Your task to perform on an android device: uninstall "HBO Max: Stream TV & Movies" Image 0: 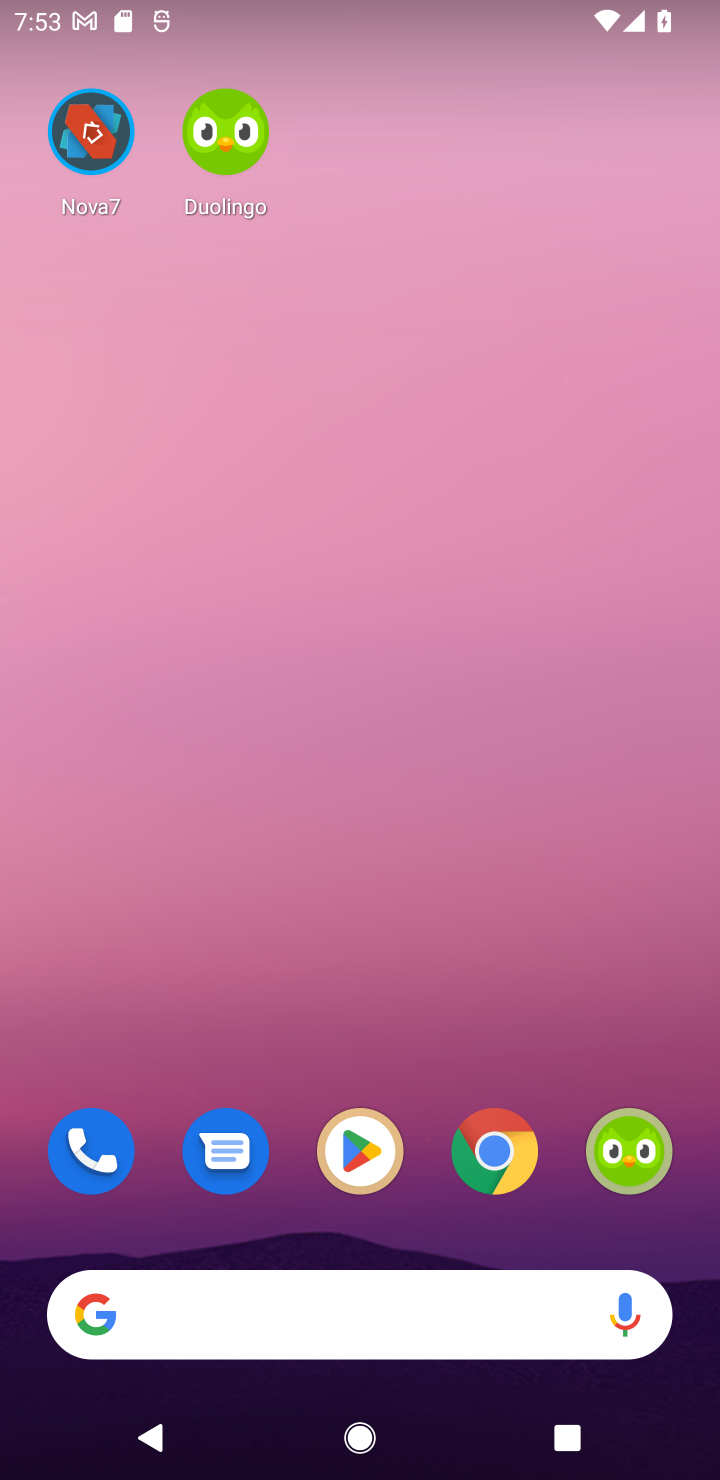
Step 0: click (338, 1144)
Your task to perform on an android device: uninstall "HBO Max: Stream TV & Movies" Image 1: 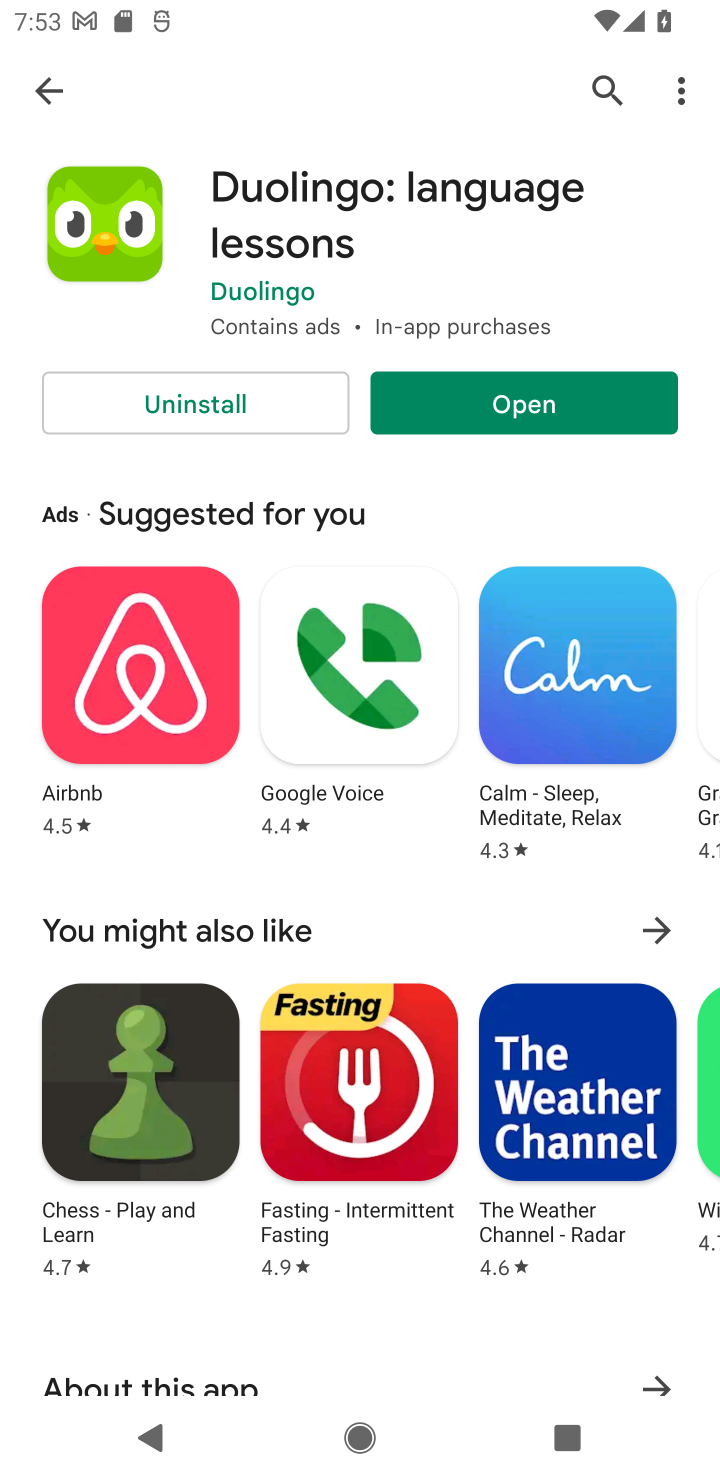
Step 1: click (45, 93)
Your task to perform on an android device: uninstall "HBO Max: Stream TV & Movies" Image 2: 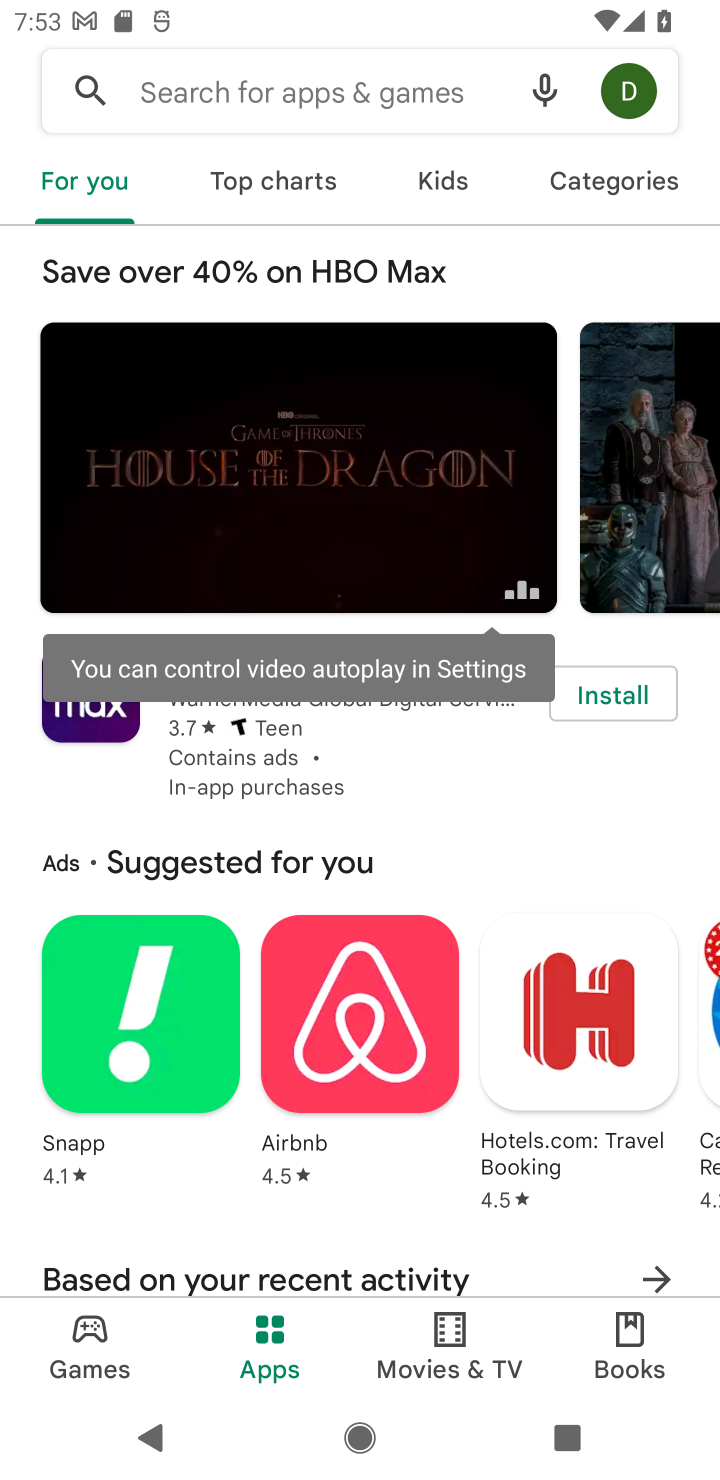
Step 2: click (295, 93)
Your task to perform on an android device: uninstall "HBO Max: Stream TV & Movies" Image 3: 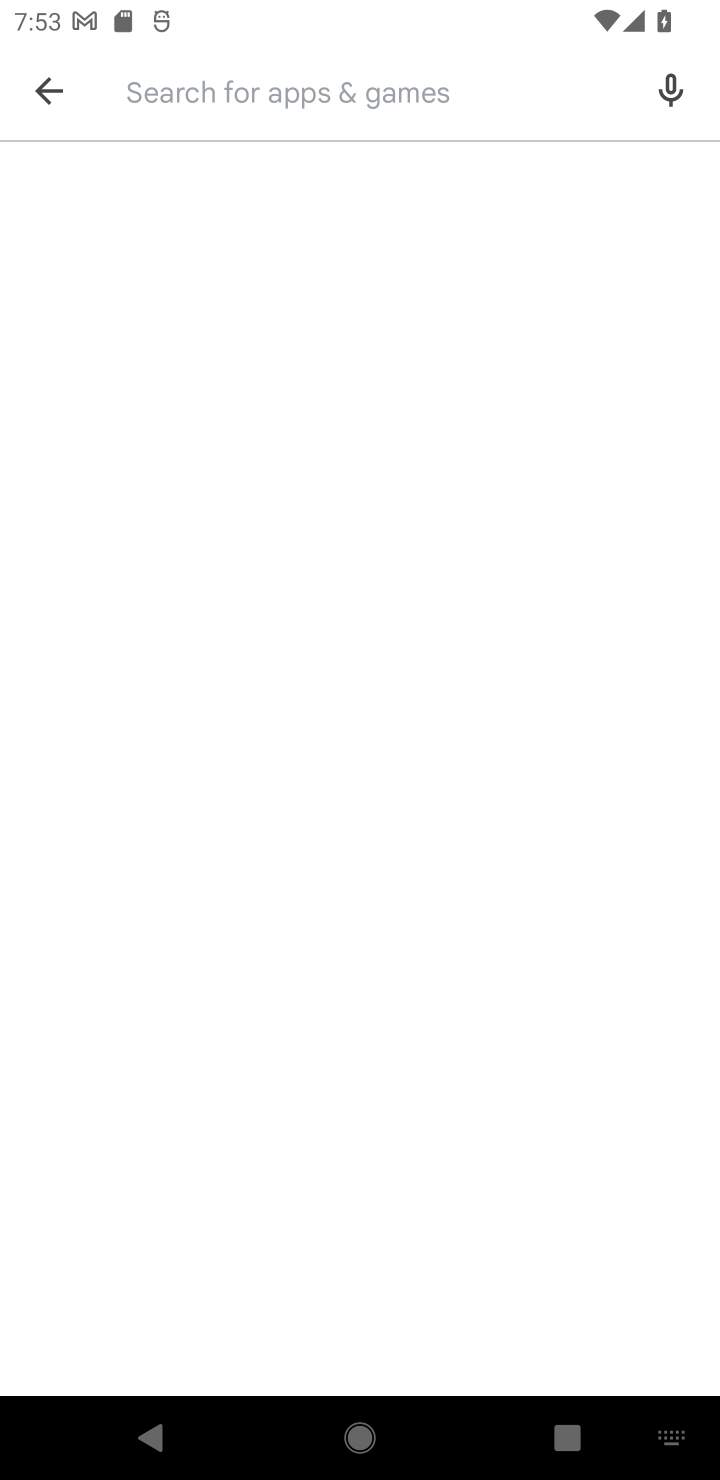
Step 3: type "HBO Max: Stream TV & Movies"
Your task to perform on an android device: uninstall "HBO Max: Stream TV & Movies" Image 4: 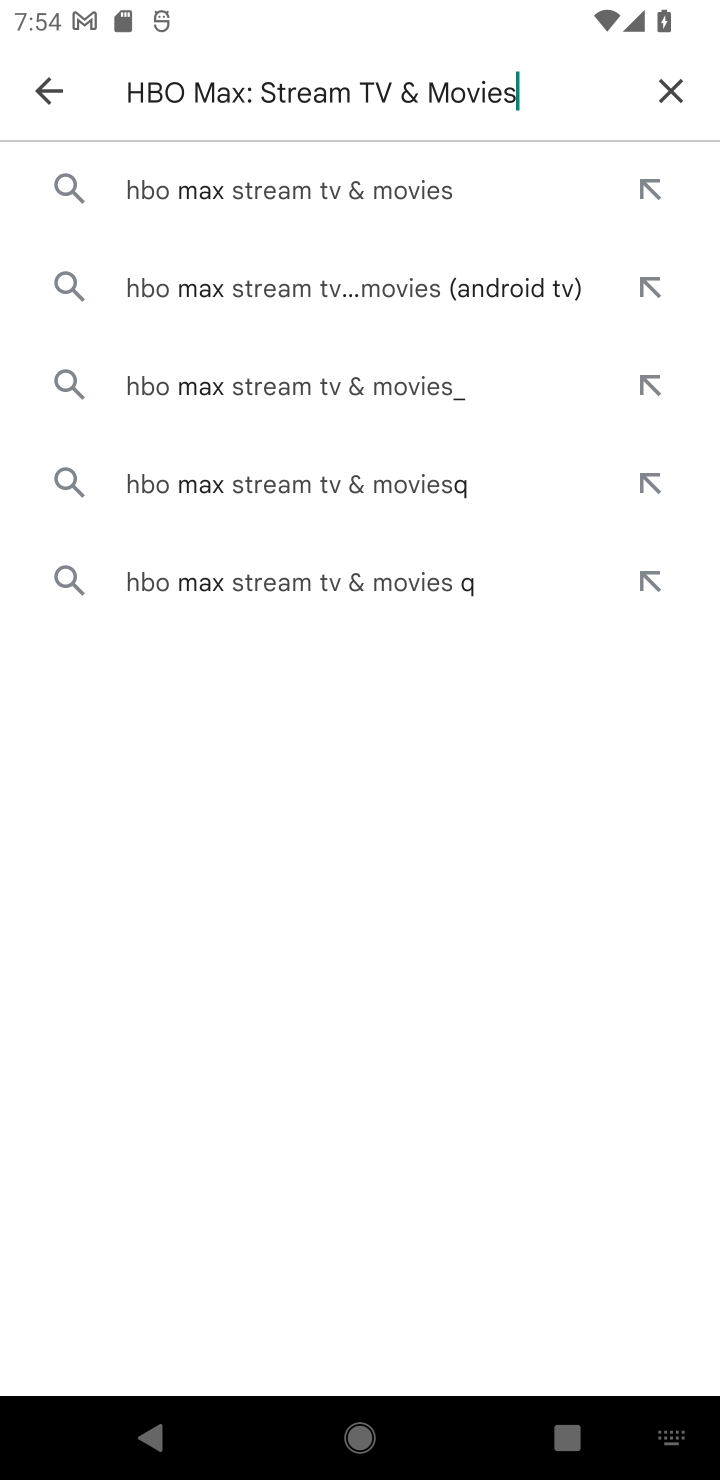
Step 4: click (289, 183)
Your task to perform on an android device: uninstall "HBO Max: Stream TV & Movies" Image 5: 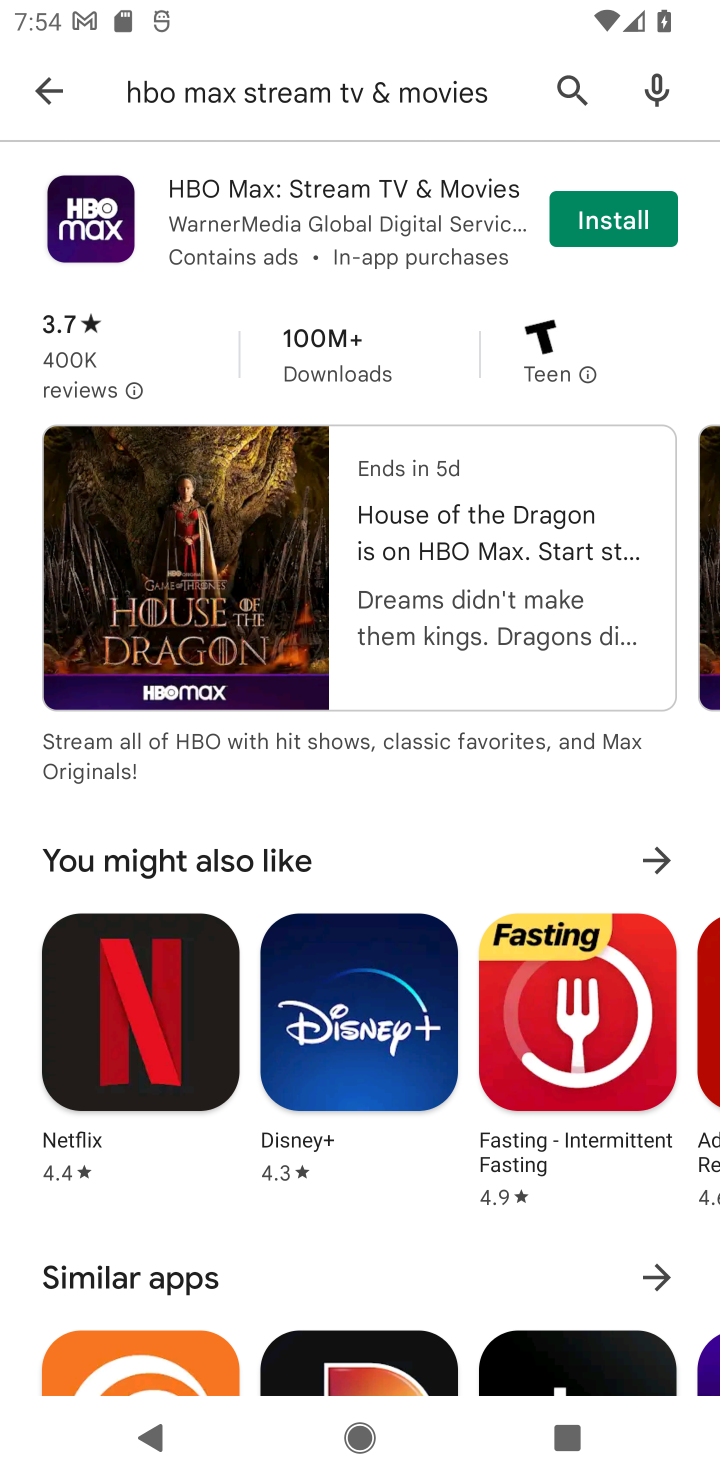
Step 5: task complete